Your task to perform on an android device: Go to location settings Image 0: 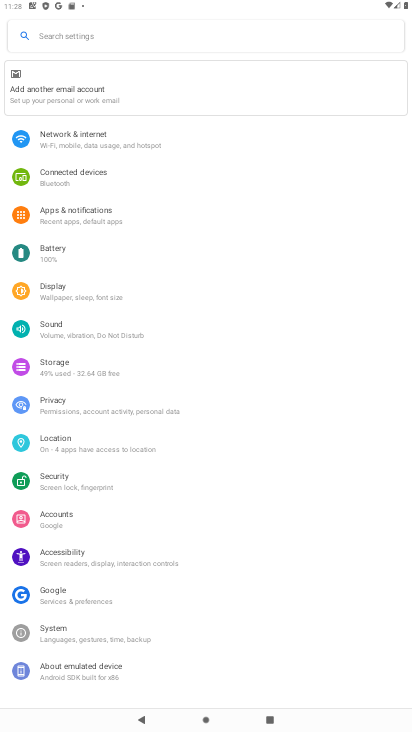
Step 0: click (79, 438)
Your task to perform on an android device: Go to location settings Image 1: 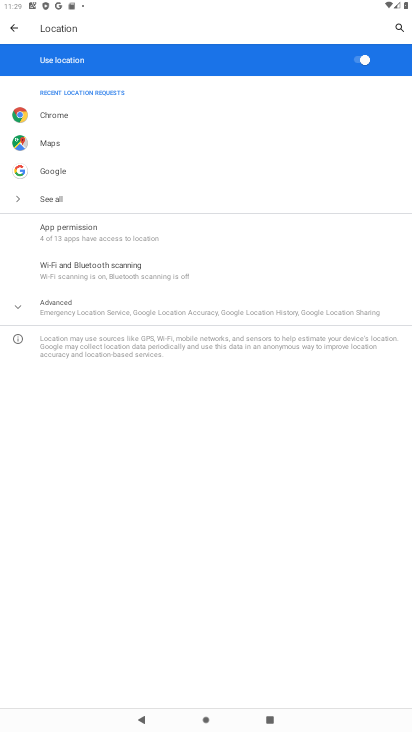
Step 1: click (50, 301)
Your task to perform on an android device: Go to location settings Image 2: 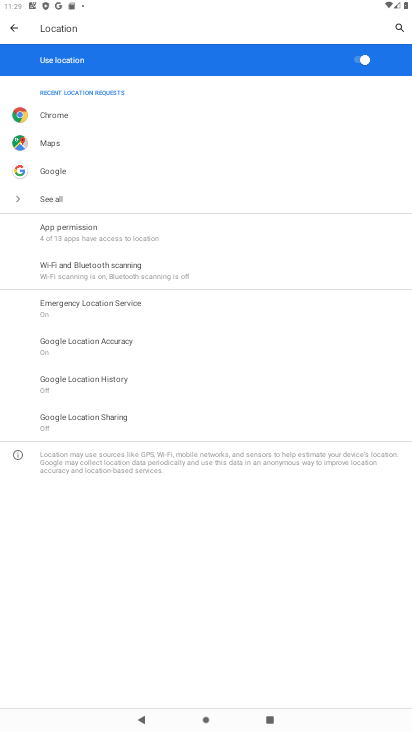
Step 2: task complete